Your task to perform on an android device: install app "Google Play Music" Image 0: 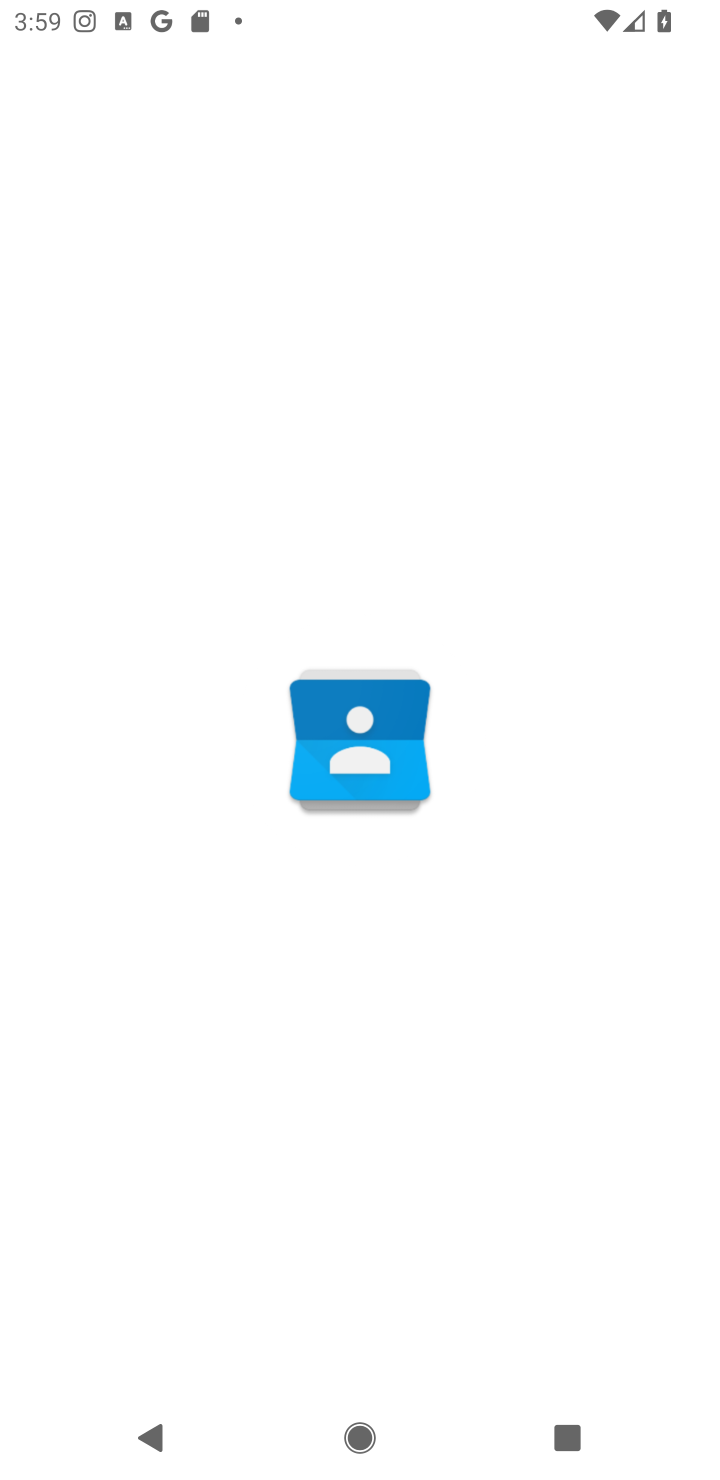
Step 0: press home button
Your task to perform on an android device: install app "Google Play Music" Image 1: 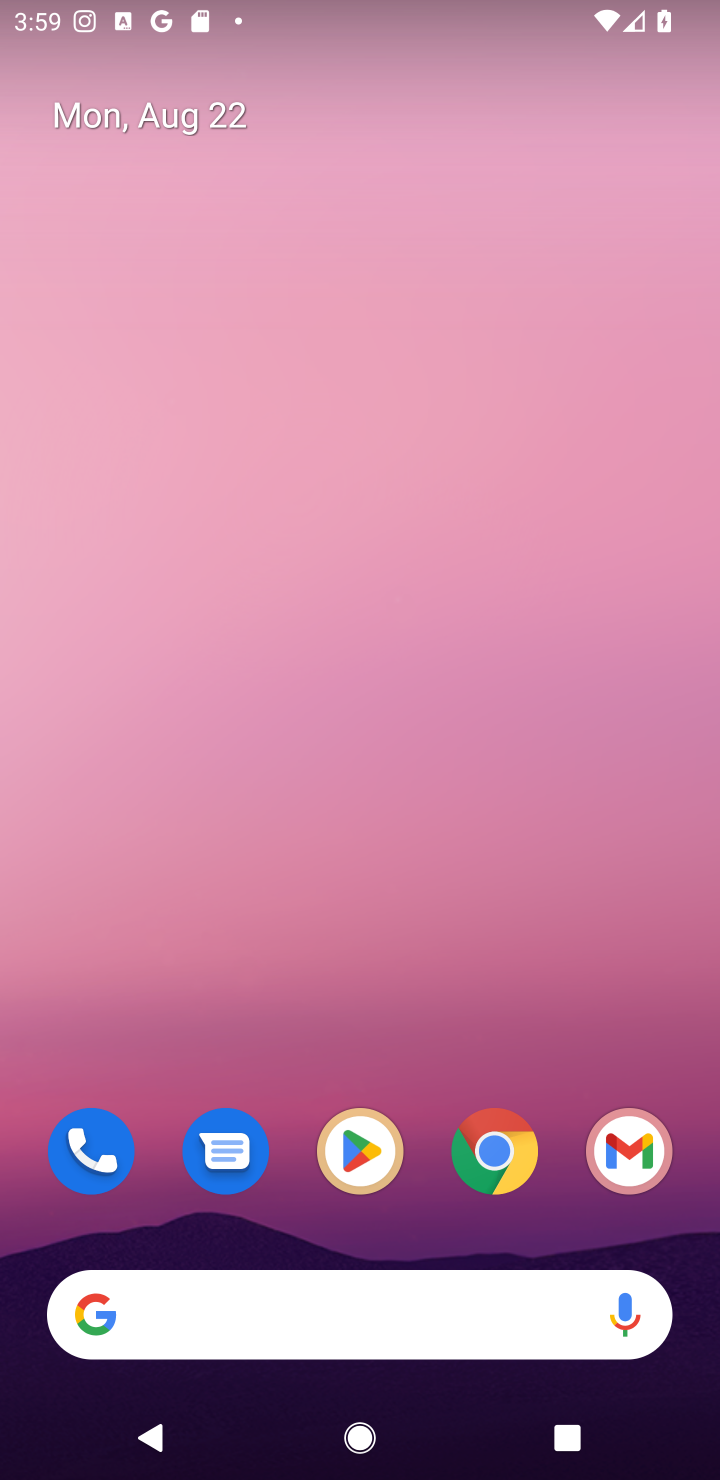
Step 1: click (367, 1147)
Your task to perform on an android device: install app "Google Play Music" Image 2: 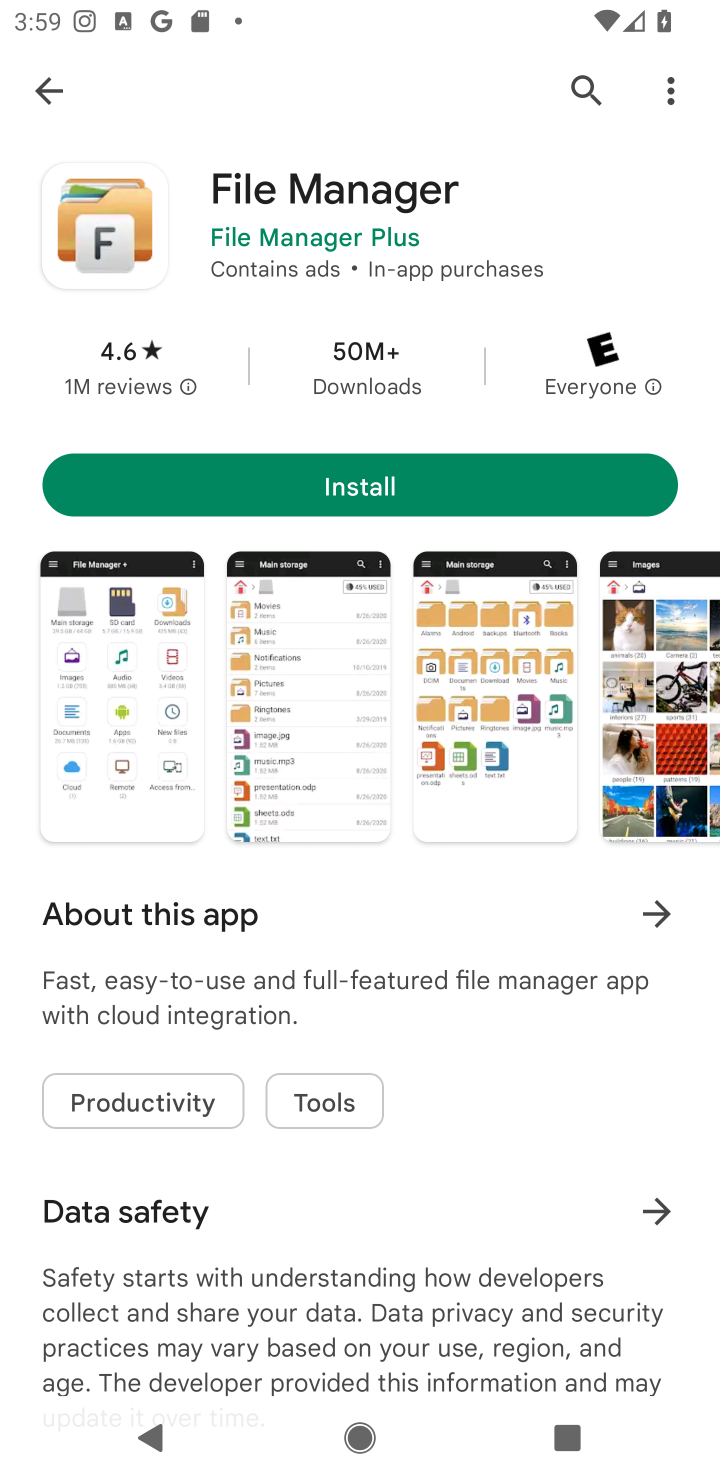
Step 2: click (587, 80)
Your task to perform on an android device: install app "Google Play Music" Image 3: 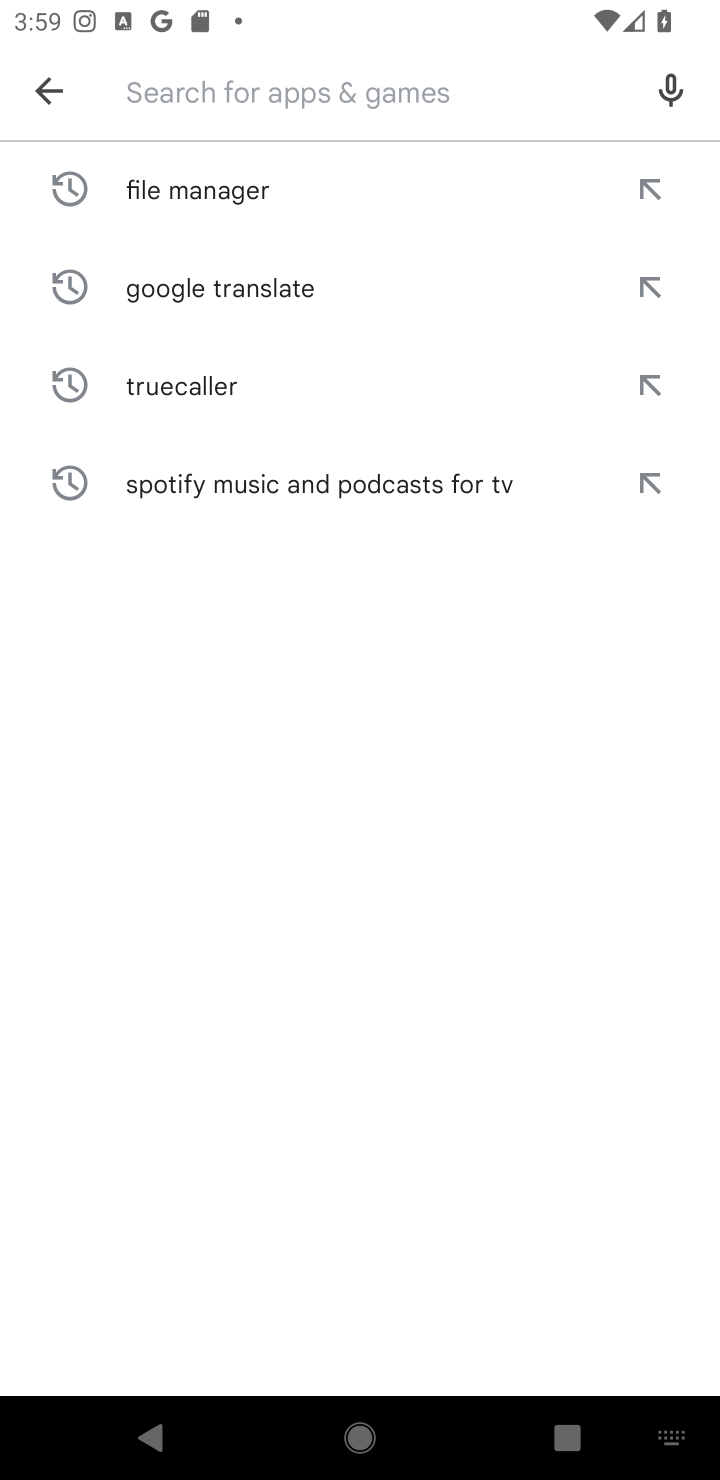
Step 3: type "Google Play Music"
Your task to perform on an android device: install app "Google Play Music" Image 4: 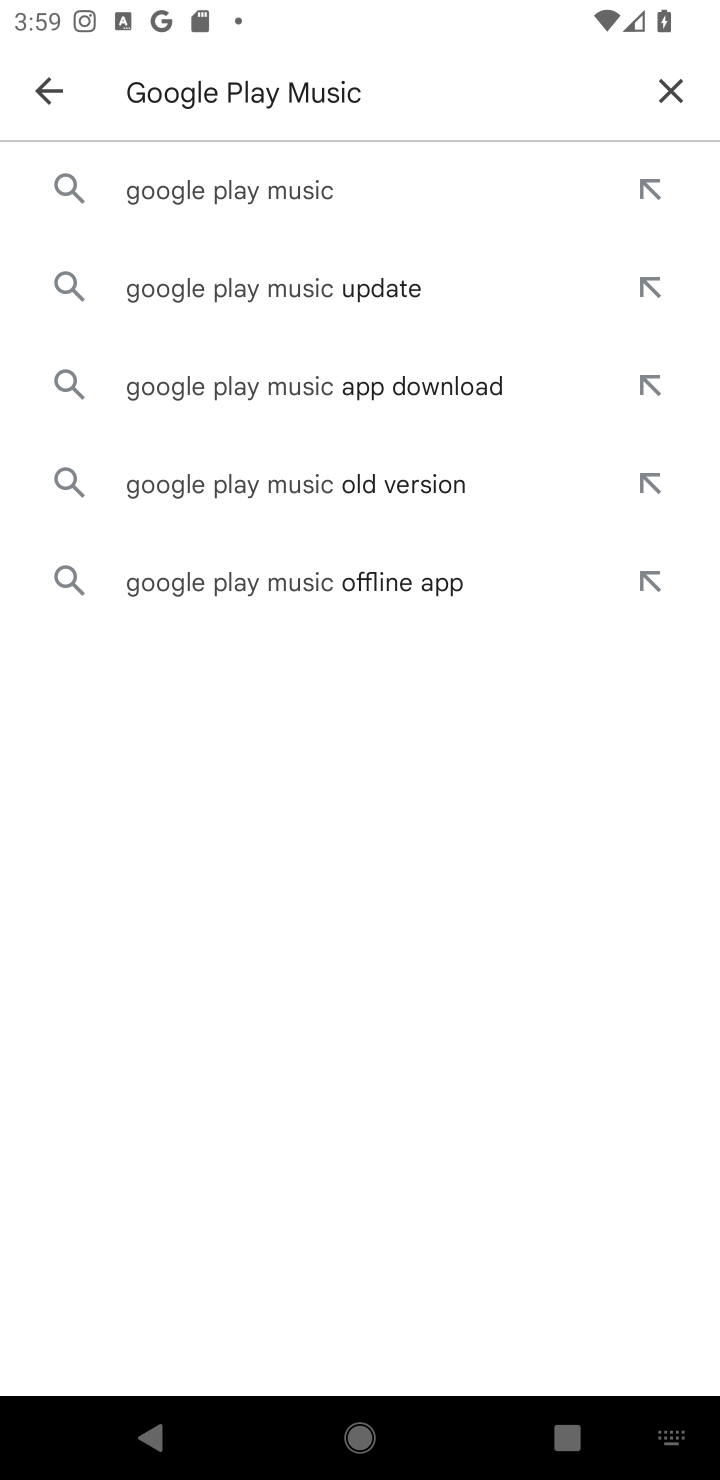
Step 4: click (269, 190)
Your task to perform on an android device: install app "Google Play Music" Image 5: 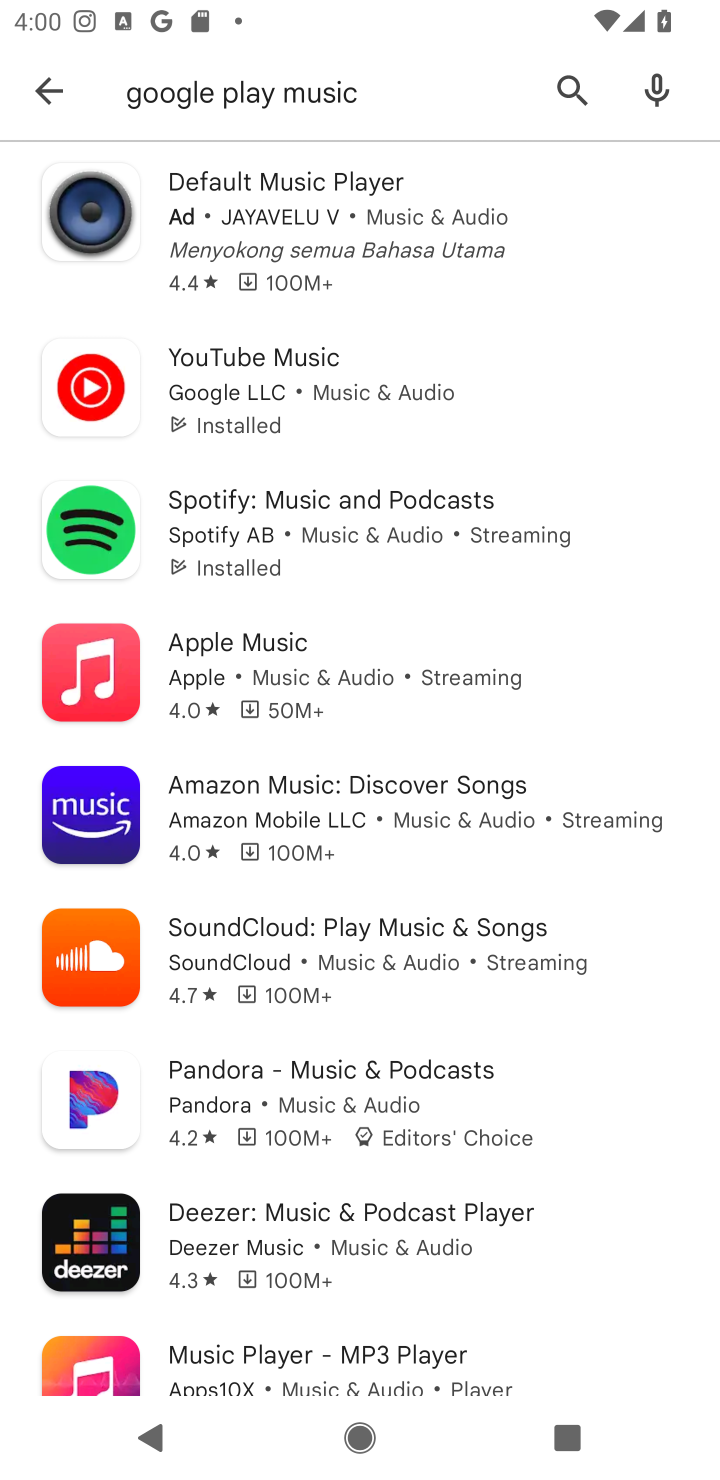
Step 5: task complete